Your task to perform on an android device: check google app version Image 0: 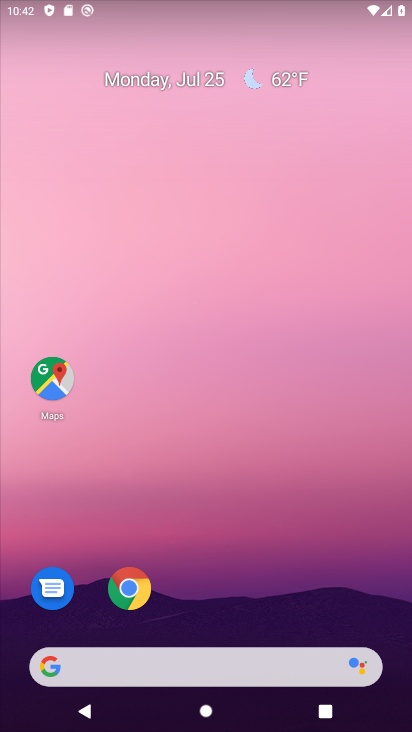
Step 0: drag from (20, 658) to (309, 84)
Your task to perform on an android device: check google app version Image 1: 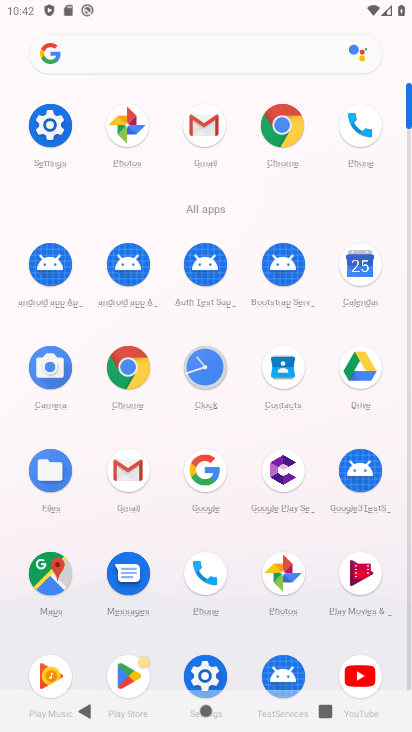
Step 1: click (345, 473)
Your task to perform on an android device: check google app version Image 2: 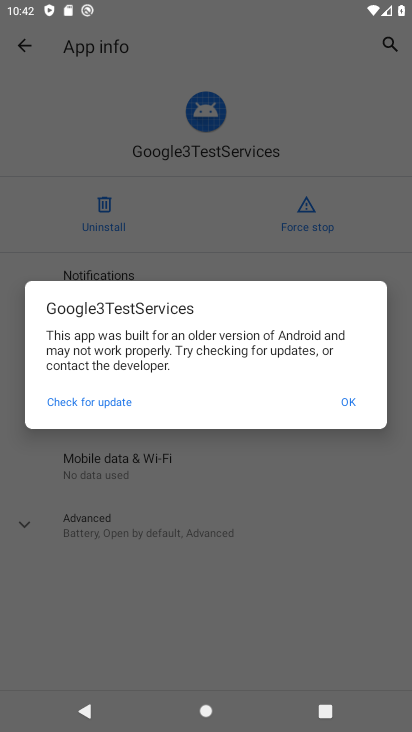
Step 2: click (352, 402)
Your task to perform on an android device: check google app version Image 3: 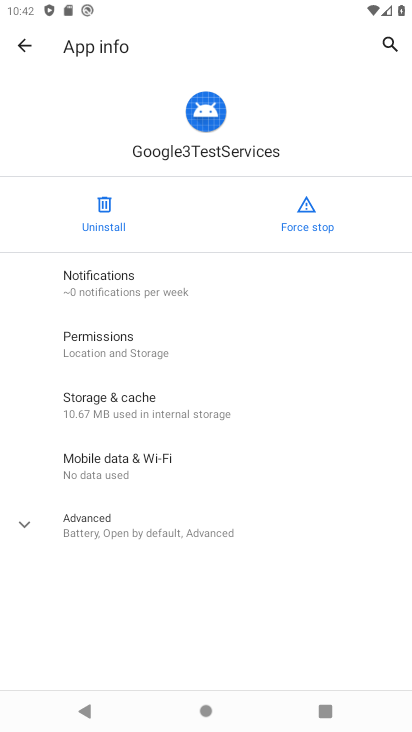
Step 3: click (146, 530)
Your task to perform on an android device: check google app version Image 4: 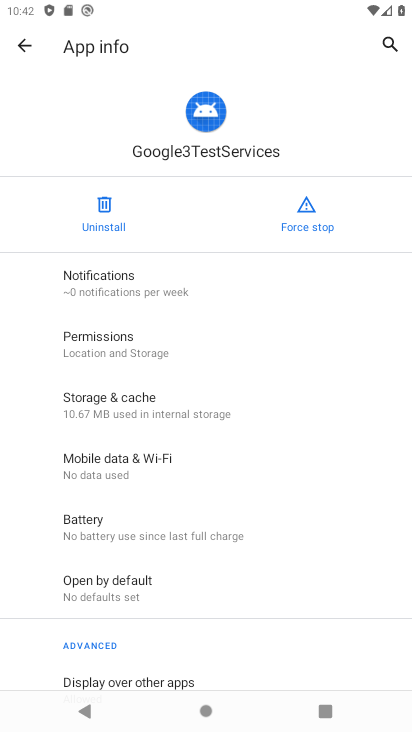
Step 4: drag from (2, 697) to (186, 184)
Your task to perform on an android device: check google app version Image 5: 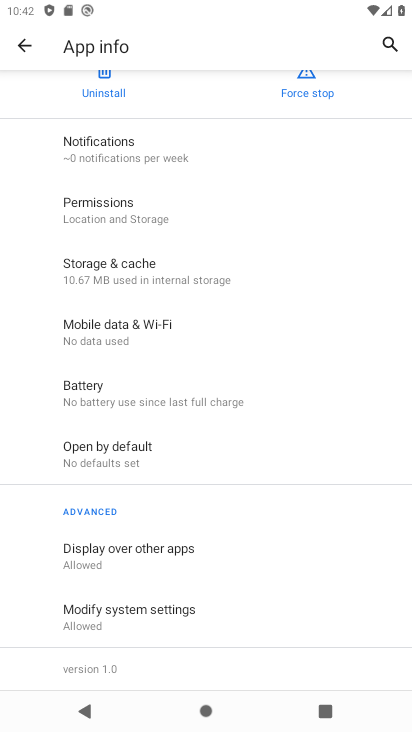
Step 5: click (106, 659)
Your task to perform on an android device: check google app version Image 6: 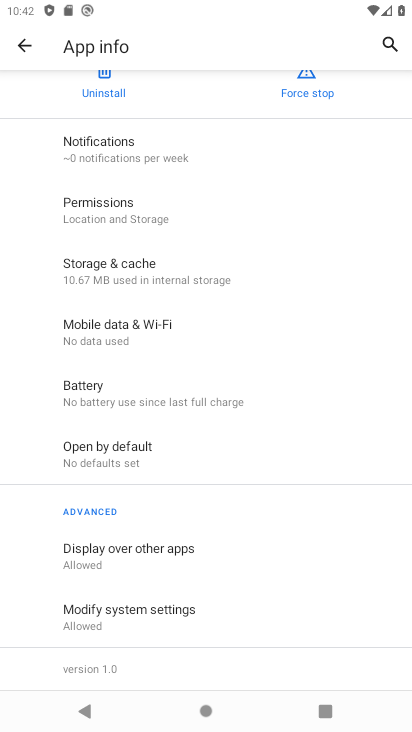
Step 6: task complete